Your task to perform on an android device: Go to location settings Image 0: 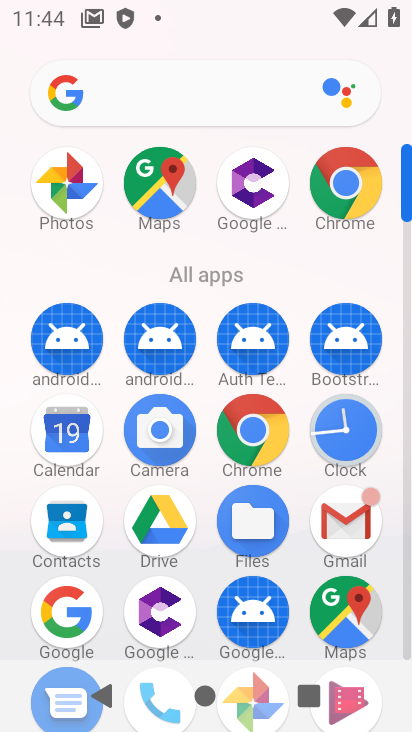
Step 0: drag from (146, 622) to (267, 71)
Your task to perform on an android device: Go to location settings Image 1: 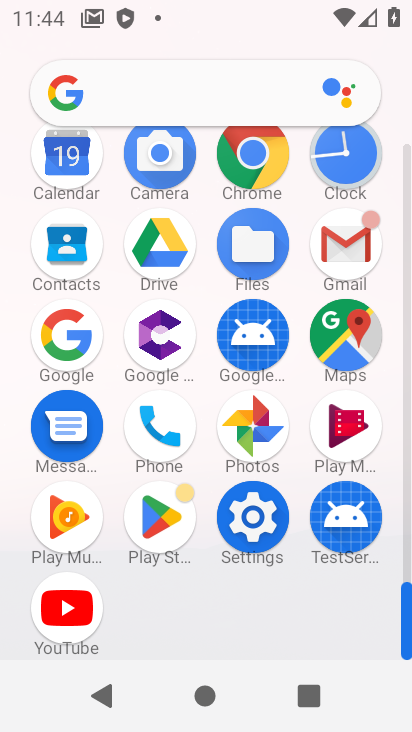
Step 1: click (252, 516)
Your task to perform on an android device: Go to location settings Image 2: 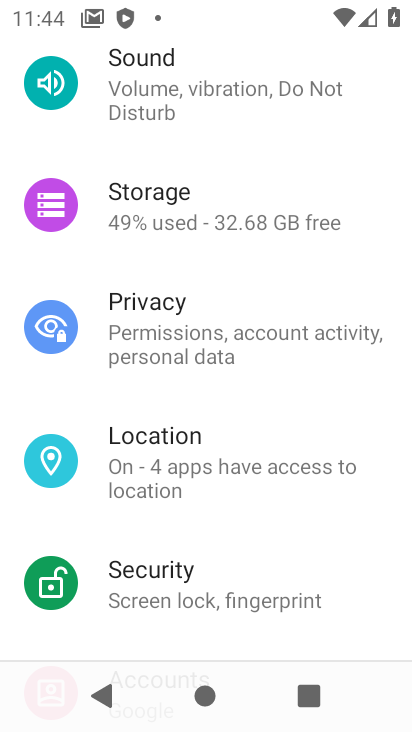
Step 2: click (133, 475)
Your task to perform on an android device: Go to location settings Image 3: 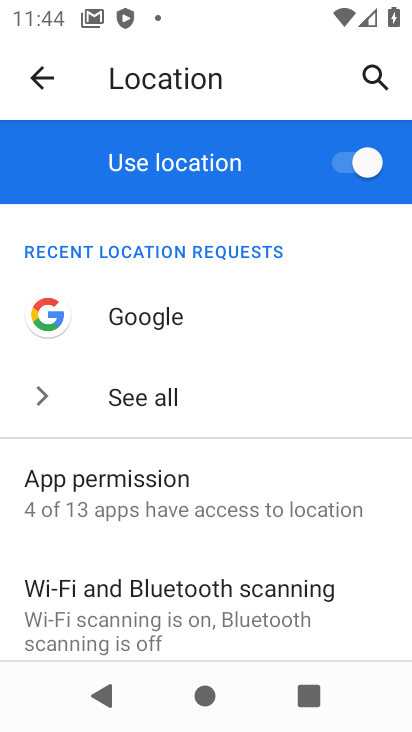
Step 3: task complete